Your task to perform on an android device: turn on airplane mode Image 0: 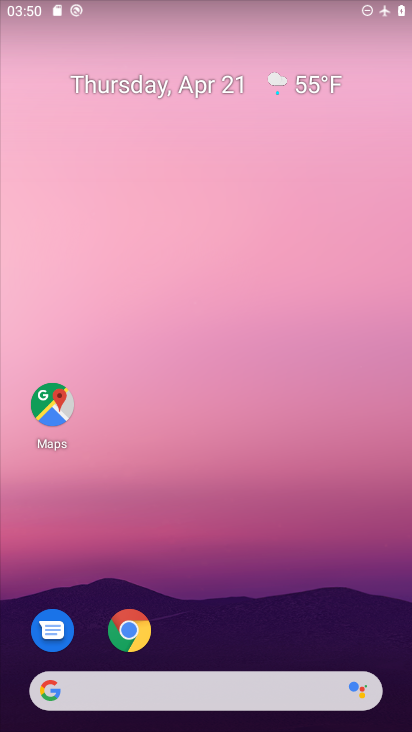
Step 0: drag from (305, 644) to (292, 301)
Your task to perform on an android device: turn on airplane mode Image 1: 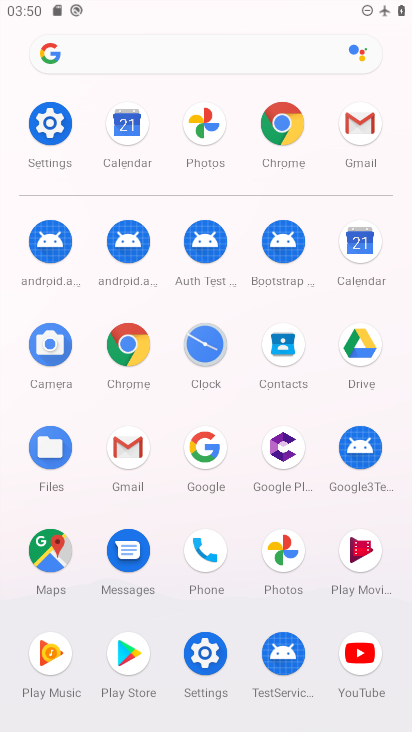
Step 1: click (65, 140)
Your task to perform on an android device: turn on airplane mode Image 2: 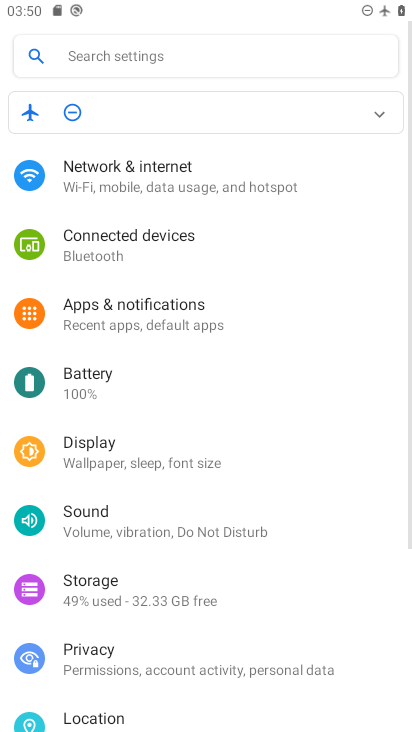
Step 2: click (177, 163)
Your task to perform on an android device: turn on airplane mode Image 3: 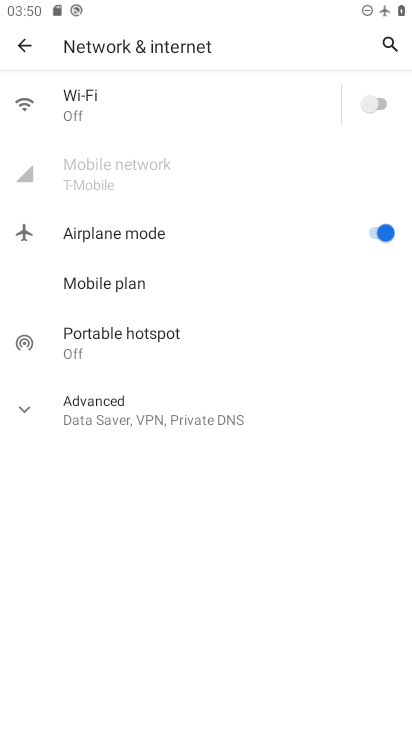
Step 3: click (376, 225)
Your task to perform on an android device: turn on airplane mode Image 4: 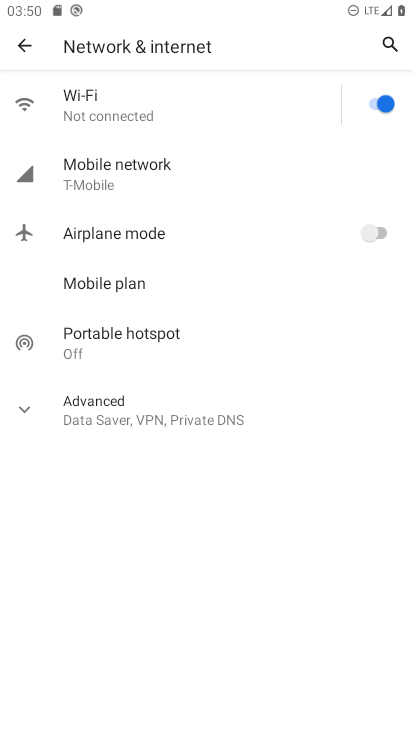
Step 4: click (379, 103)
Your task to perform on an android device: turn on airplane mode Image 5: 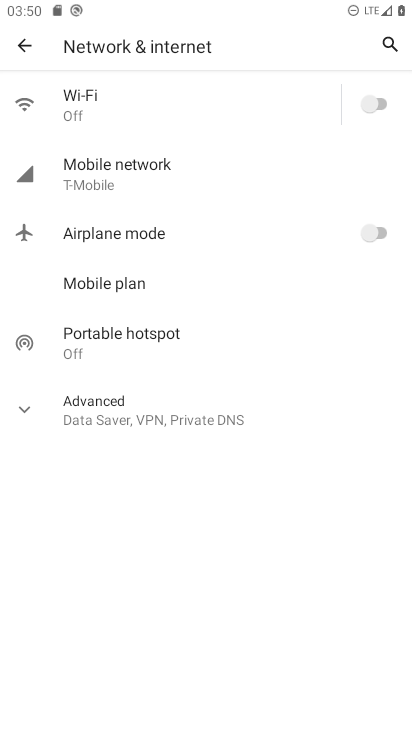
Step 5: click (388, 103)
Your task to perform on an android device: turn on airplane mode Image 6: 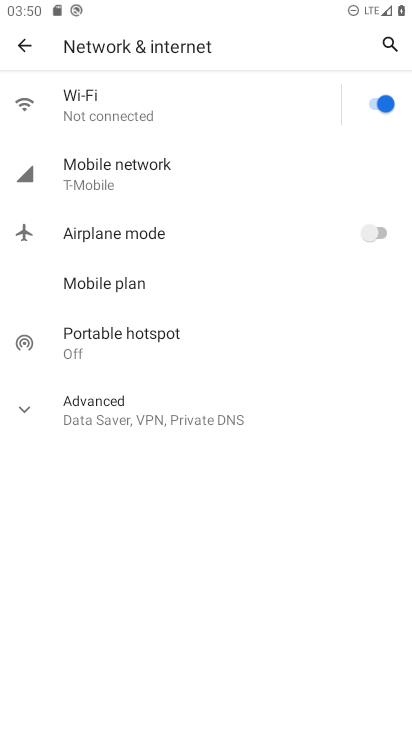
Step 6: task complete